Your task to perform on an android device: Open Google Chrome Image 0: 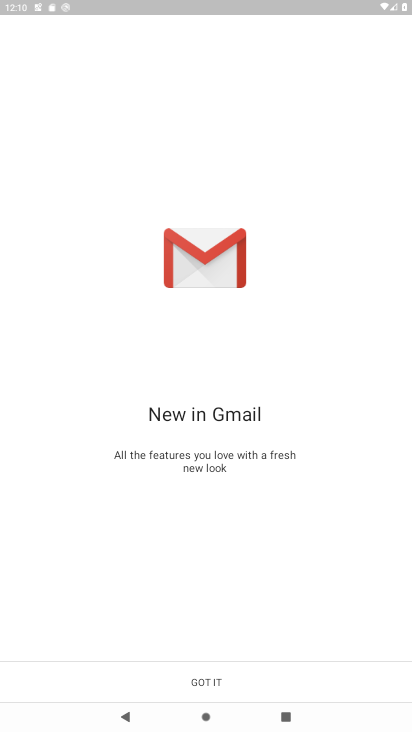
Step 0: press home button
Your task to perform on an android device: Open Google Chrome Image 1: 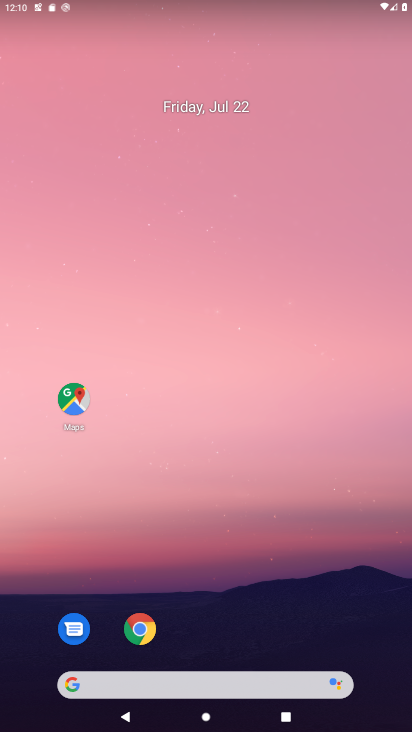
Step 1: drag from (269, 645) to (195, 132)
Your task to perform on an android device: Open Google Chrome Image 2: 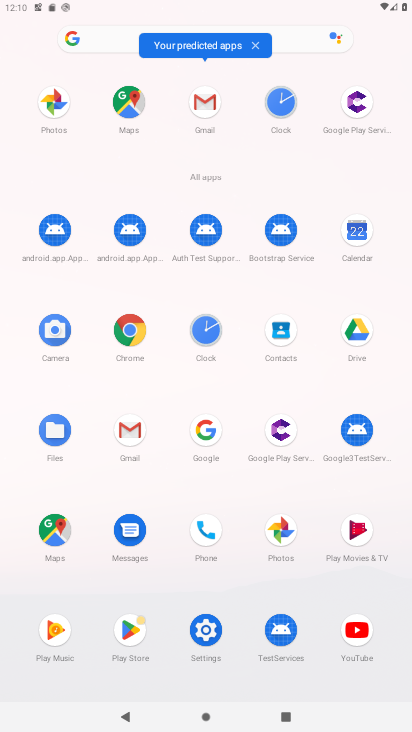
Step 2: click (131, 341)
Your task to perform on an android device: Open Google Chrome Image 3: 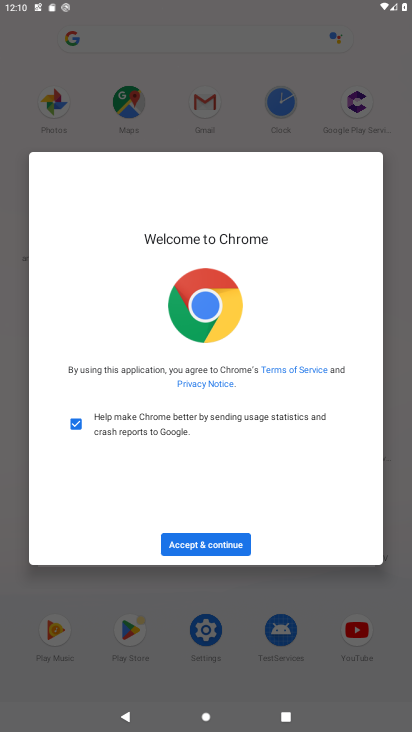
Step 3: click (213, 545)
Your task to perform on an android device: Open Google Chrome Image 4: 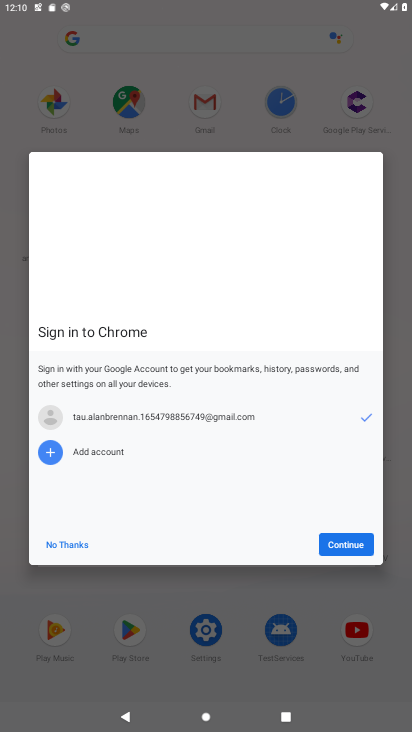
Step 4: click (331, 543)
Your task to perform on an android device: Open Google Chrome Image 5: 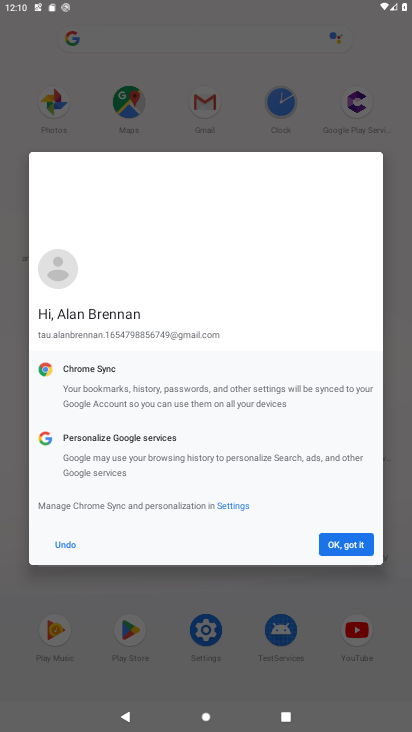
Step 5: click (333, 544)
Your task to perform on an android device: Open Google Chrome Image 6: 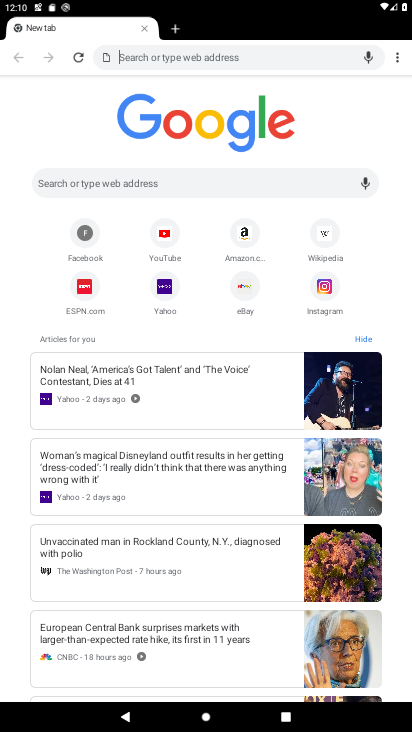
Step 6: task complete